Your task to perform on an android device: Is it going to rain tomorrow? Image 0: 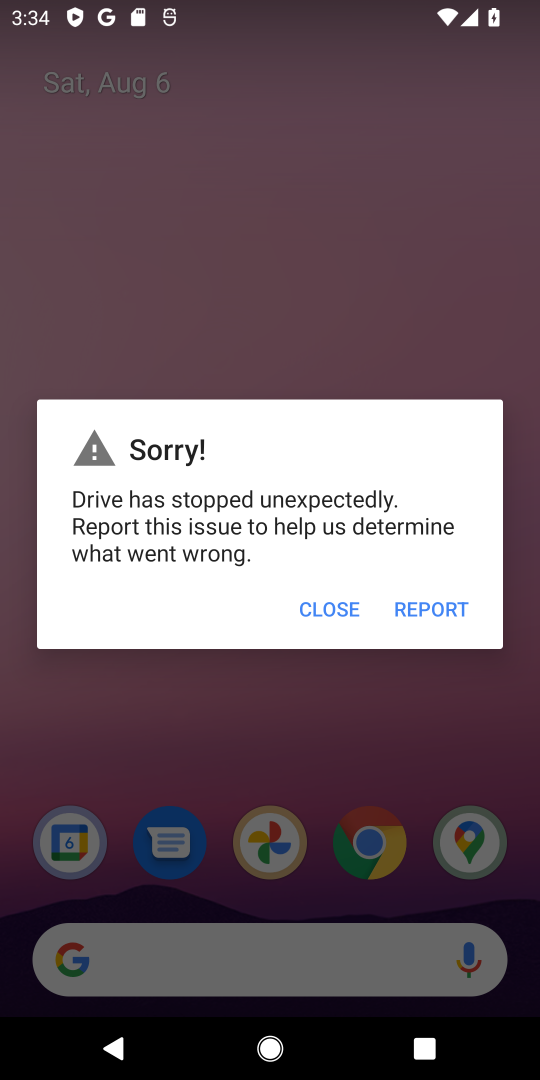
Step 0: press home button
Your task to perform on an android device: Is it going to rain tomorrow? Image 1: 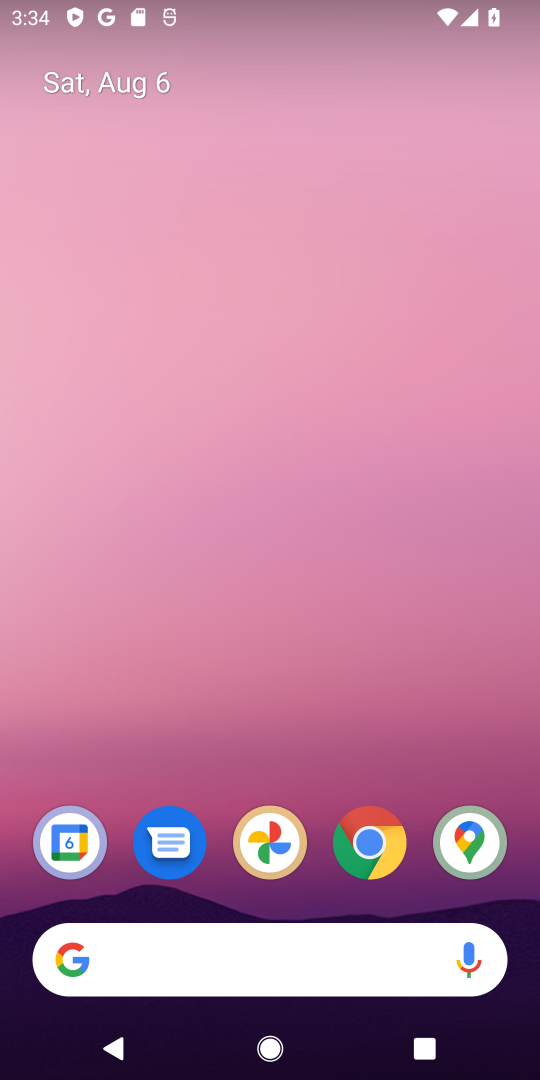
Step 1: drag from (508, 950) to (395, 175)
Your task to perform on an android device: Is it going to rain tomorrow? Image 2: 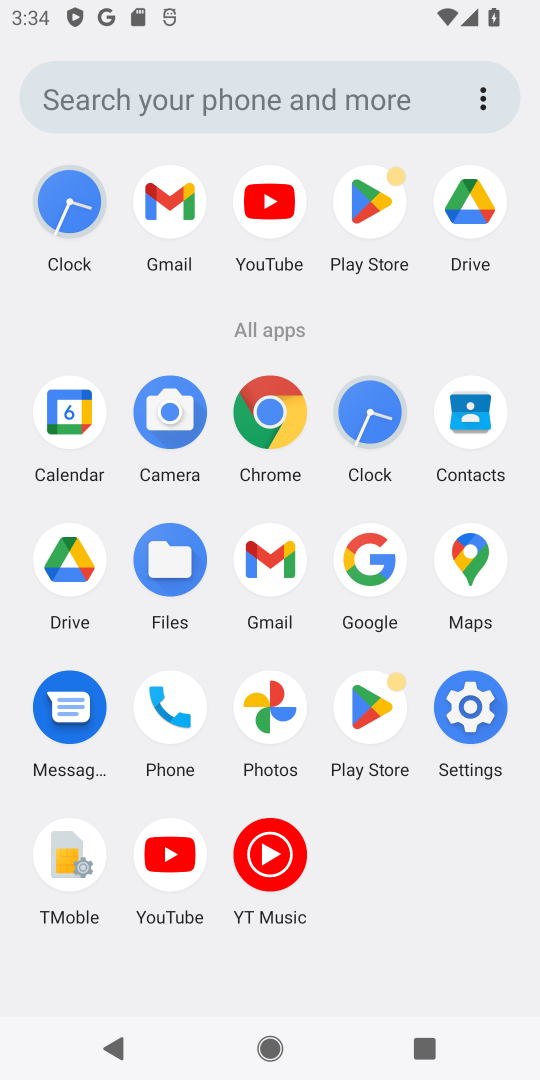
Step 2: click (362, 568)
Your task to perform on an android device: Is it going to rain tomorrow? Image 3: 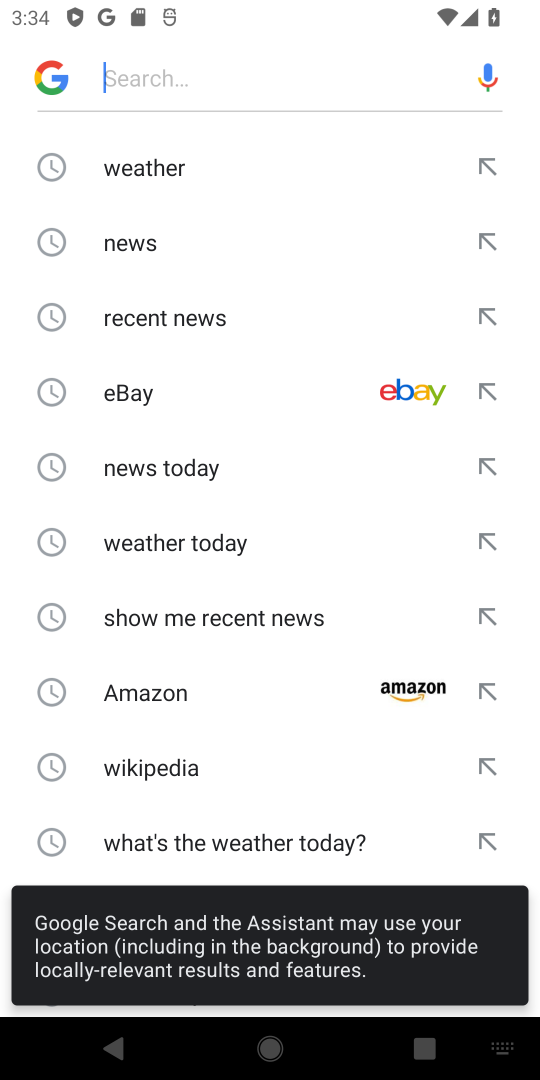
Step 3: click (131, 163)
Your task to perform on an android device: Is it going to rain tomorrow? Image 4: 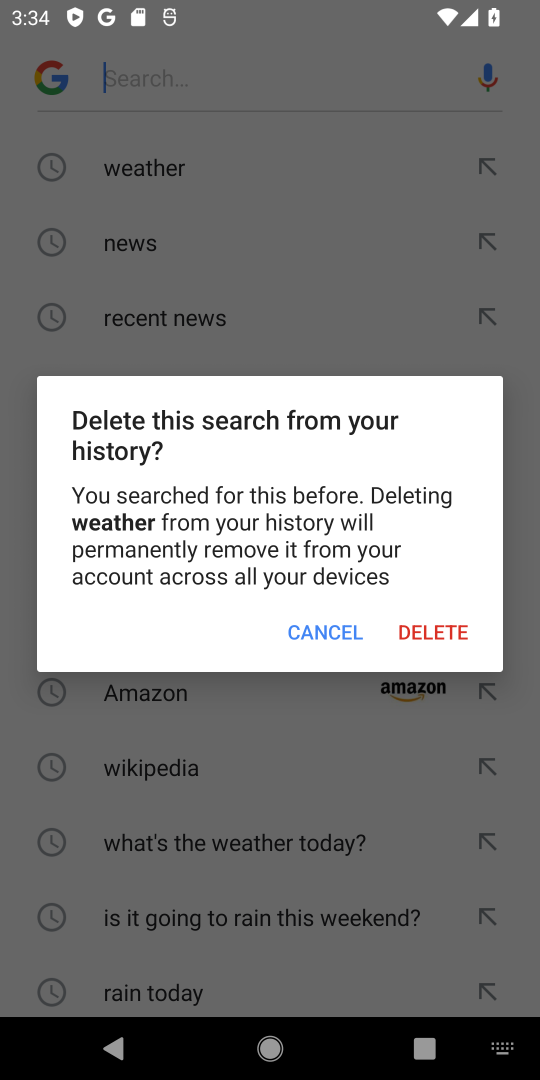
Step 4: click (341, 633)
Your task to perform on an android device: Is it going to rain tomorrow? Image 5: 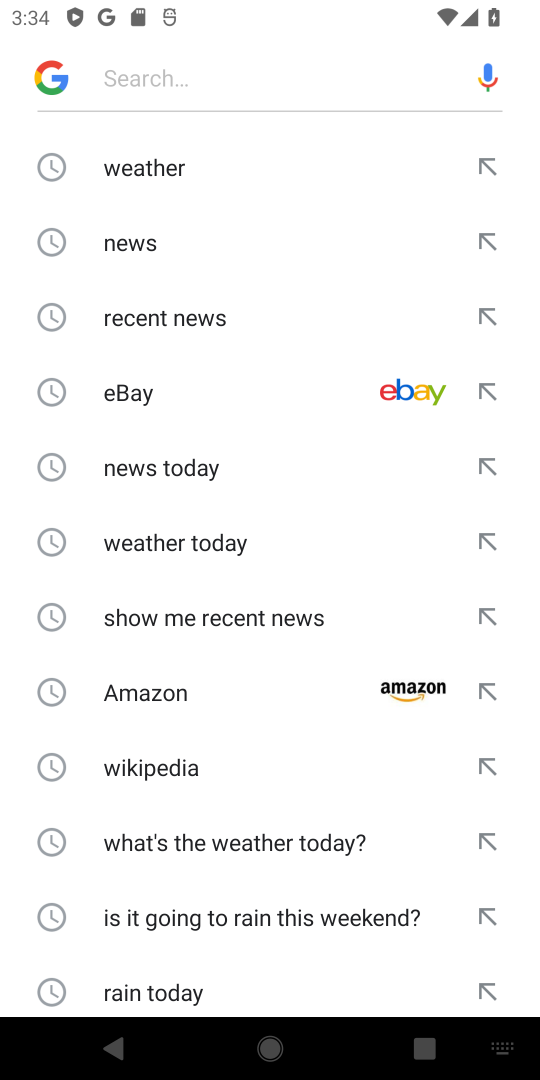
Step 5: task complete